Your task to perform on an android device: Show the shopping cart on newegg. Search for "lenovo thinkpad" on newegg, select the first entry, add it to the cart, then select checkout. Image 0: 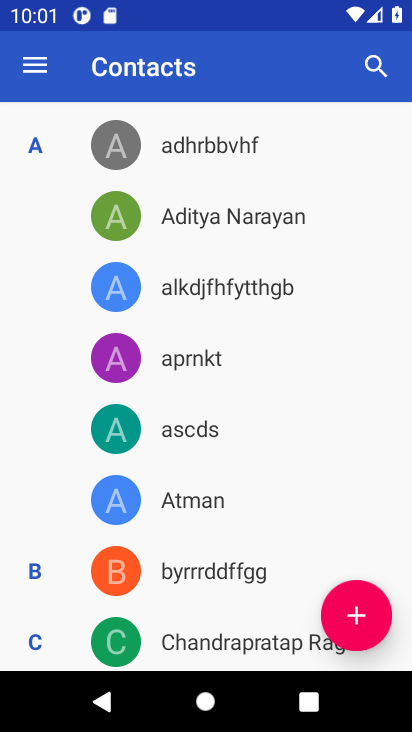
Step 0: press home button
Your task to perform on an android device: Show the shopping cart on newegg. Search for "lenovo thinkpad" on newegg, select the first entry, add it to the cart, then select checkout. Image 1: 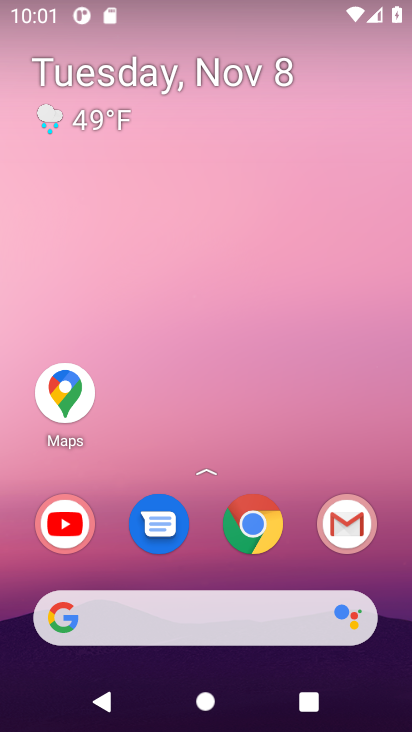
Step 1: click (246, 531)
Your task to perform on an android device: Show the shopping cart on newegg. Search for "lenovo thinkpad" on newegg, select the first entry, add it to the cart, then select checkout. Image 2: 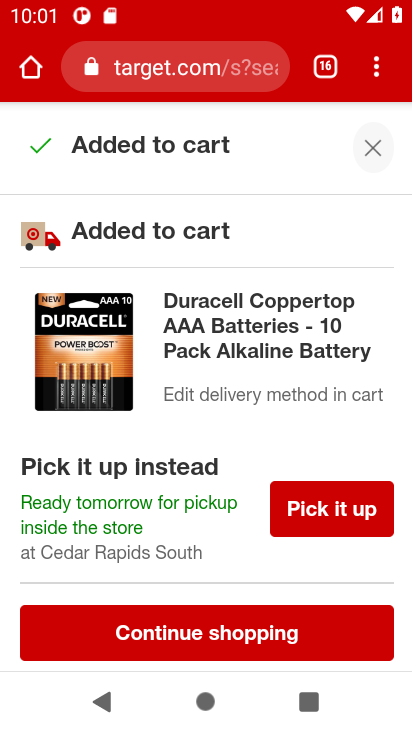
Step 2: click (182, 72)
Your task to perform on an android device: Show the shopping cart on newegg. Search for "lenovo thinkpad" on newegg, select the first entry, add it to the cart, then select checkout. Image 3: 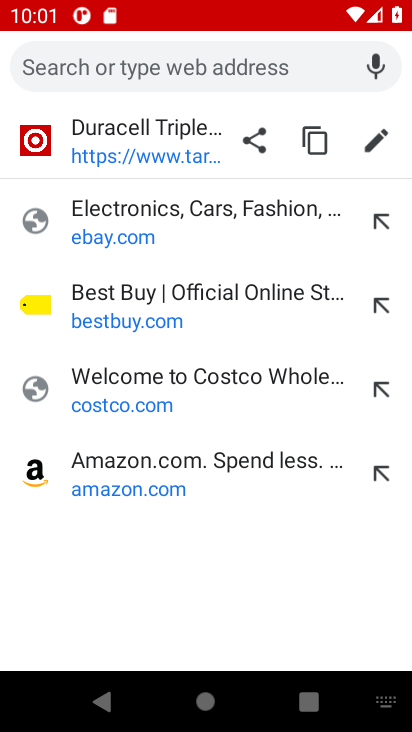
Step 3: type "newegg.com"
Your task to perform on an android device: Show the shopping cart on newegg. Search for "lenovo thinkpad" on newegg, select the first entry, add it to the cart, then select checkout. Image 4: 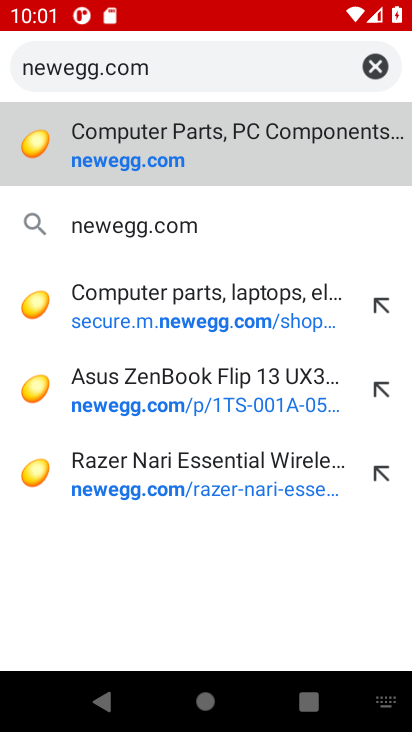
Step 4: click (119, 168)
Your task to perform on an android device: Show the shopping cart on newegg. Search for "lenovo thinkpad" on newegg, select the first entry, add it to the cart, then select checkout. Image 5: 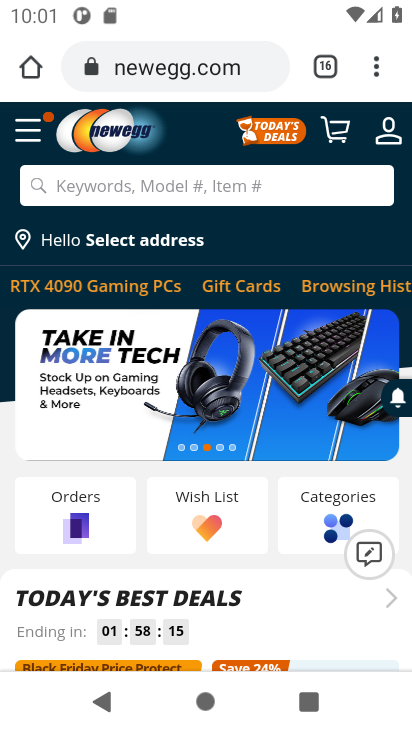
Step 5: click (350, 124)
Your task to perform on an android device: Show the shopping cart on newegg. Search for "lenovo thinkpad" on newegg, select the first entry, add it to the cart, then select checkout. Image 6: 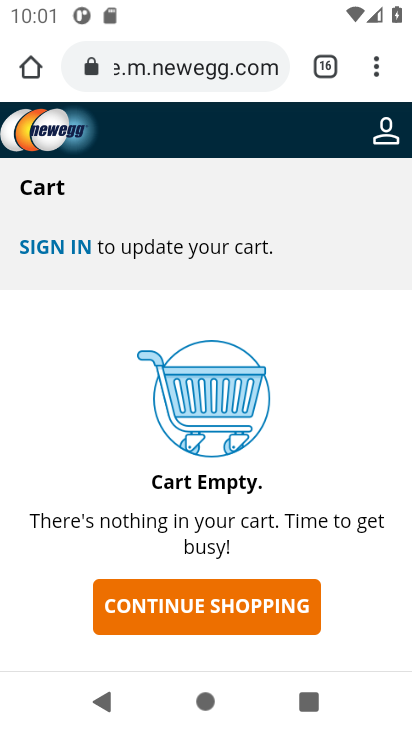
Step 6: click (230, 591)
Your task to perform on an android device: Show the shopping cart on newegg. Search for "lenovo thinkpad" on newegg, select the first entry, add it to the cart, then select checkout. Image 7: 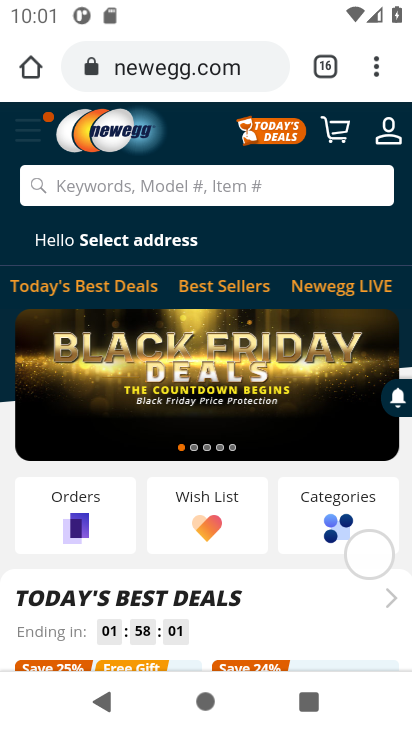
Step 7: click (137, 193)
Your task to perform on an android device: Show the shopping cart on newegg. Search for "lenovo thinkpad" on newegg, select the first entry, add it to the cart, then select checkout. Image 8: 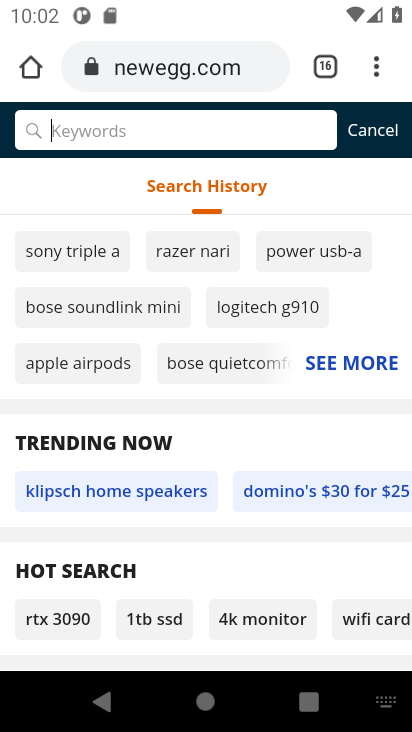
Step 8: type "lenovo thinkpad"
Your task to perform on an android device: Show the shopping cart on newegg. Search for "lenovo thinkpad" on newegg, select the first entry, add it to the cart, then select checkout. Image 9: 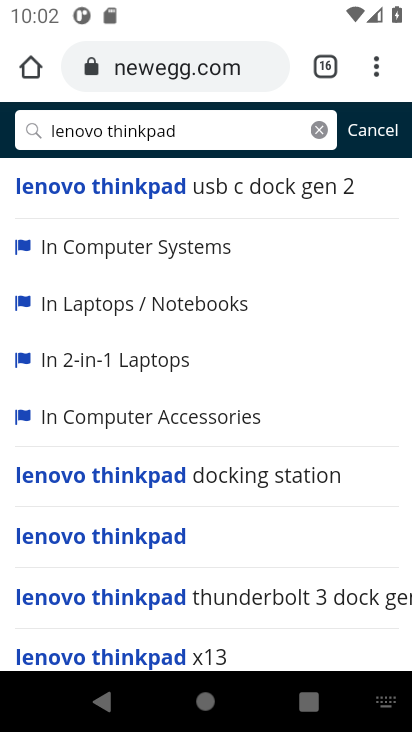
Step 9: click (105, 554)
Your task to perform on an android device: Show the shopping cart on newegg. Search for "lenovo thinkpad" on newegg, select the first entry, add it to the cart, then select checkout. Image 10: 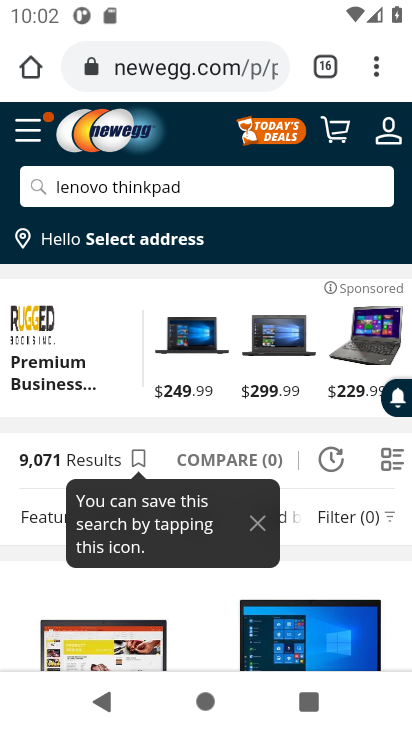
Step 10: drag from (119, 583) to (129, 273)
Your task to perform on an android device: Show the shopping cart on newegg. Search for "lenovo thinkpad" on newegg, select the first entry, add it to the cart, then select checkout. Image 11: 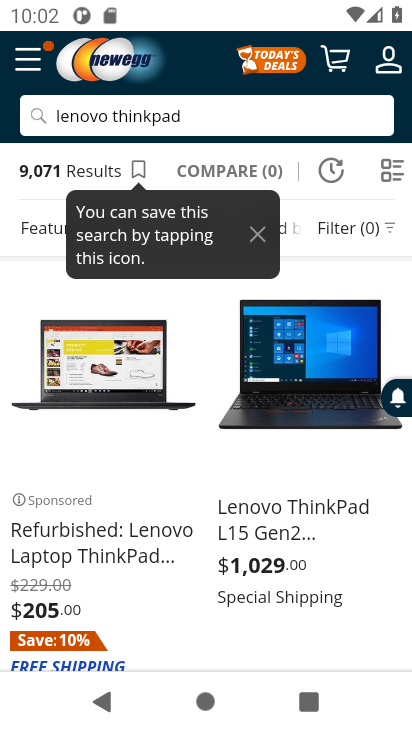
Step 11: drag from (122, 478) to (118, 339)
Your task to perform on an android device: Show the shopping cart on newegg. Search for "lenovo thinkpad" on newegg, select the first entry, add it to the cart, then select checkout. Image 12: 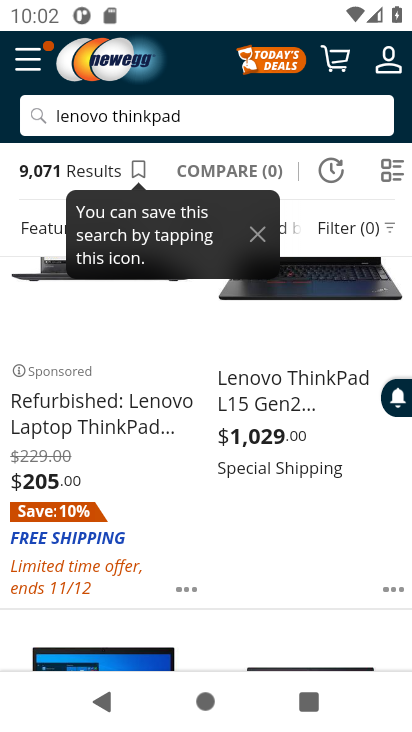
Step 12: drag from (107, 312) to (109, 464)
Your task to perform on an android device: Show the shopping cart on newegg. Search for "lenovo thinkpad" on newegg, select the first entry, add it to the cart, then select checkout. Image 13: 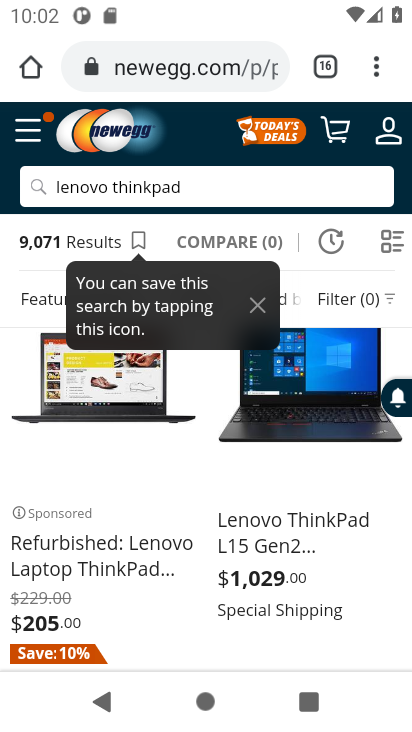
Step 13: click (92, 555)
Your task to perform on an android device: Show the shopping cart on newegg. Search for "lenovo thinkpad" on newegg, select the first entry, add it to the cart, then select checkout. Image 14: 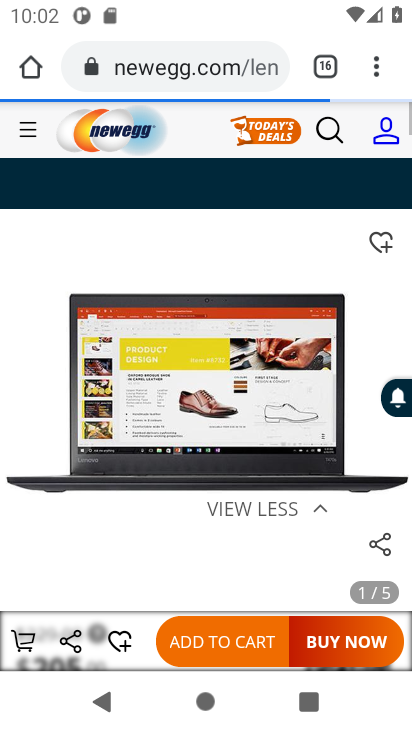
Step 14: click (216, 640)
Your task to perform on an android device: Show the shopping cart on newegg. Search for "lenovo thinkpad" on newegg, select the first entry, add it to the cart, then select checkout. Image 15: 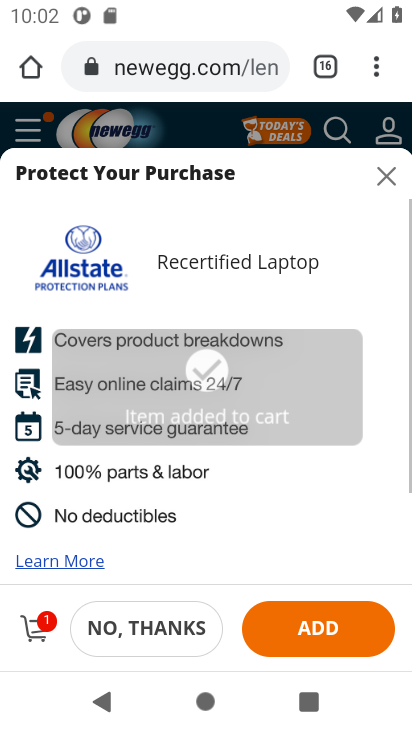
Step 15: click (36, 629)
Your task to perform on an android device: Show the shopping cart on newegg. Search for "lenovo thinkpad" on newegg, select the first entry, add it to the cart, then select checkout. Image 16: 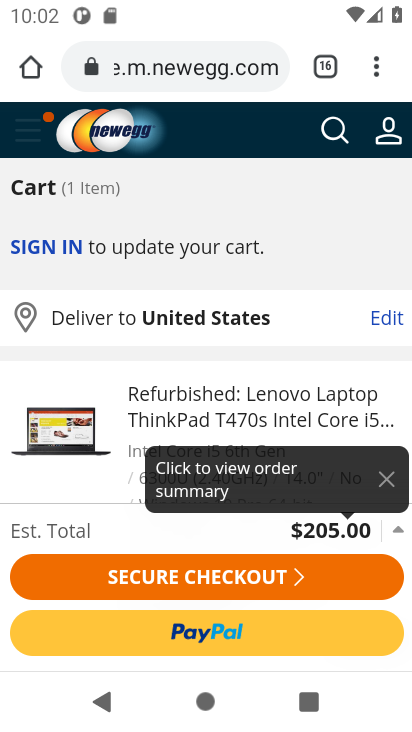
Step 16: click (181, 577)
Your task to perform on an android device: Show the shopping cart on newegg. Search for "lenovo thinkpad" on newegg, select the first entry, add it to the cart, then select checkout. Image 17: 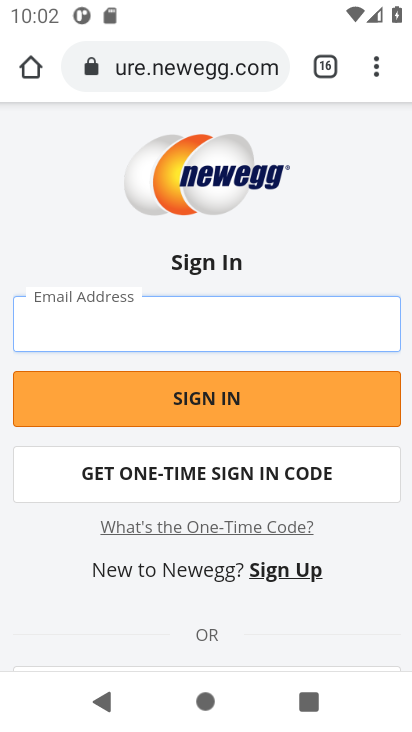
Step 17: task complete